Your task to perform on an android device: change your default location settings in chrome Image 0: 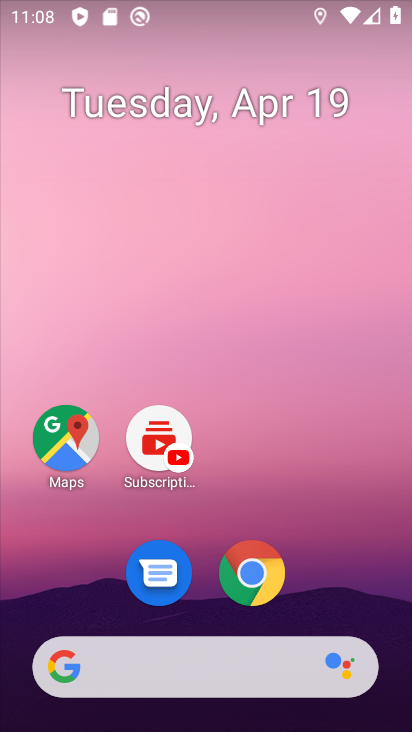
Step 0: click (244, 562)
Your task to perform on an android device: change your default location settings in chrome Image 1: 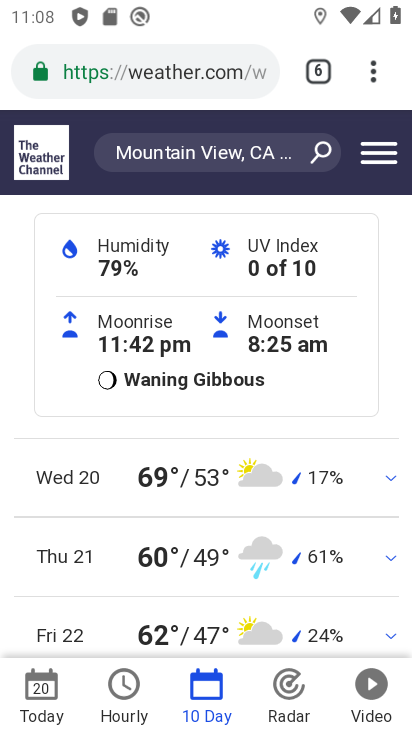
Step 1: drag from (375, 78) to (94, 563)
Your task to perform on an android device: change your default location settings in chrome Image 2: 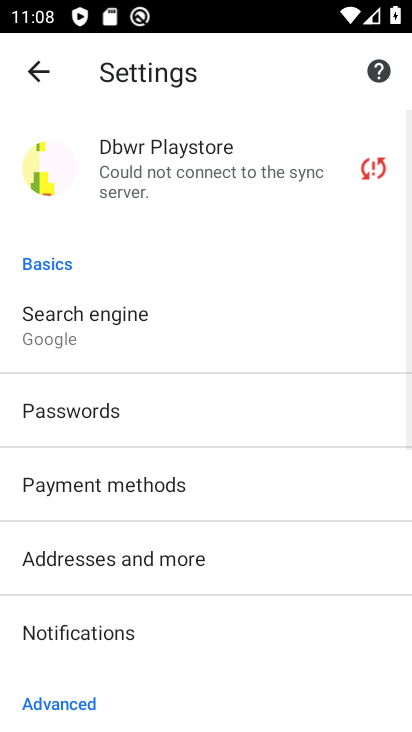
Step 2: drag from (192, 622) to (200, 236)
Your task to perform on an android device: change your default location settings in chrome Image 3: 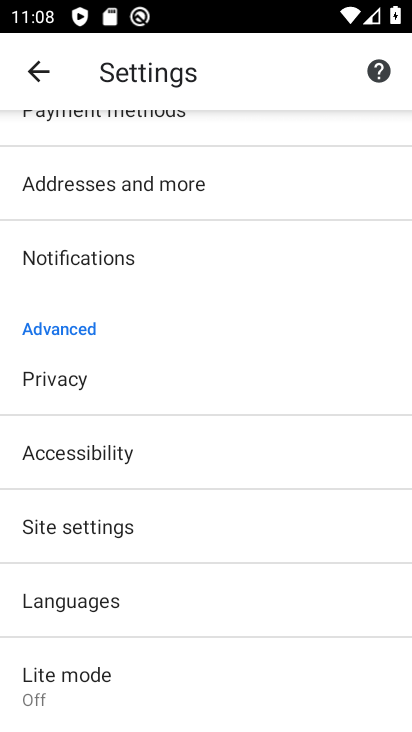
Step 3: click (88, 523)
Your task to perform on an android device: change your default location settings in chrome Image 4: 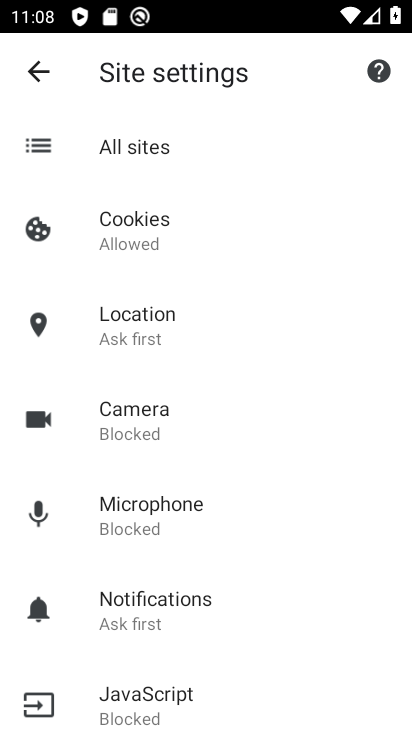
Step 4: click (158, 328)
Your task to perform on an android device: change your default location settings in chrome Image 5: 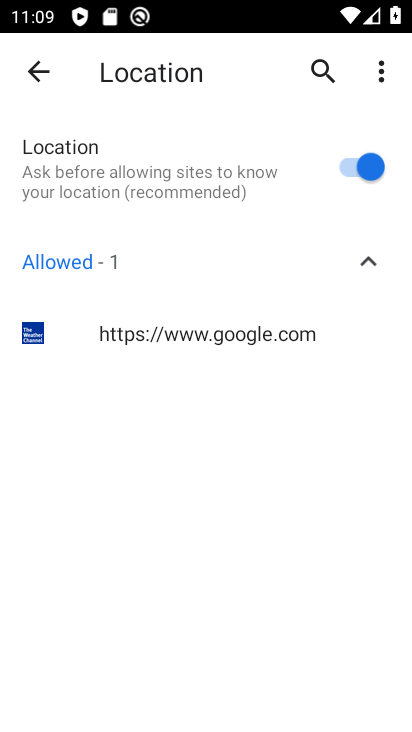
Step 5: click (368, 260)
Your task to perform on an android device: change your default location settings in chrome Image 6: 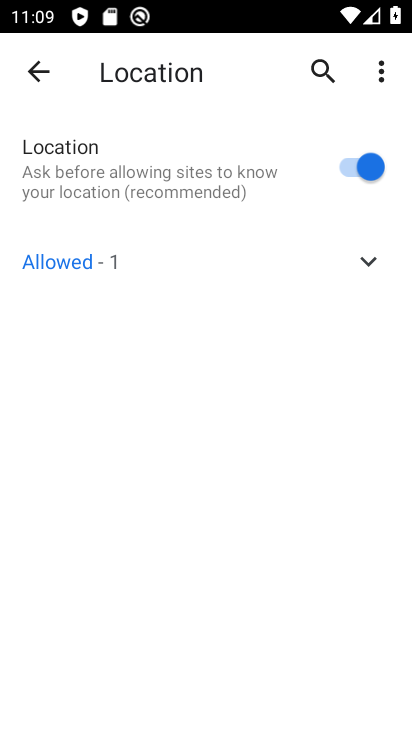
Step 6: click (368, 260)
Your task to perform on an android device: change your default location settings in chrome Image 7: 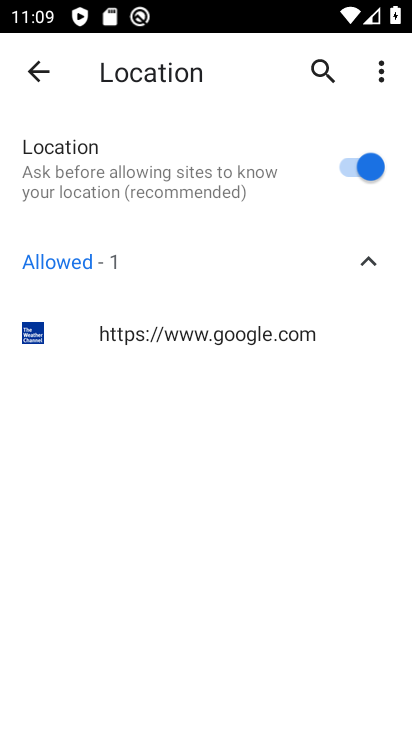
Step 7: click (366, 170)
Your task to perform on an android device: change your default location settings in chrome Image 8: 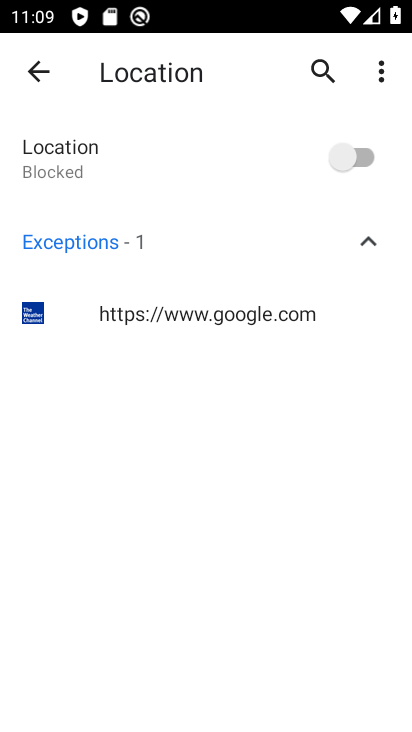
Step 8: task complete